Your task to perform on an android device: Open settings on Google Maps Image 0: 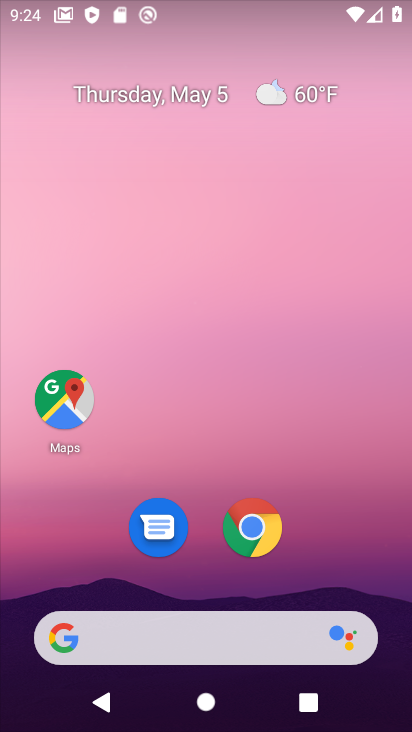
Step 0: click (78, 422)
Your task to perform on an android device: Open settings on Google Maps Image 1: 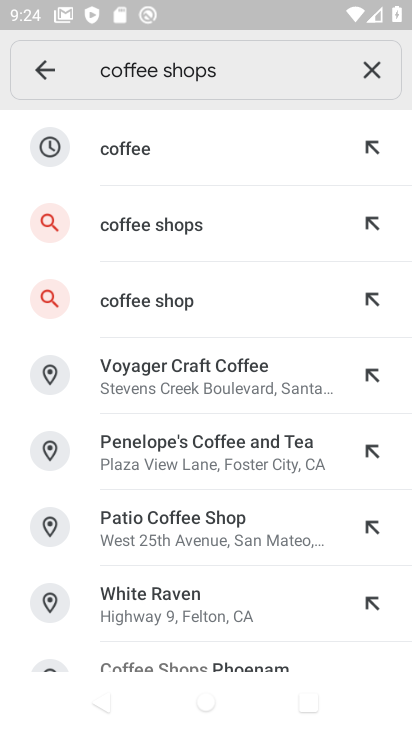
Step 1: click (54, 80)
Your task to perform on an android device: Open settings on Google Maps Image 2: 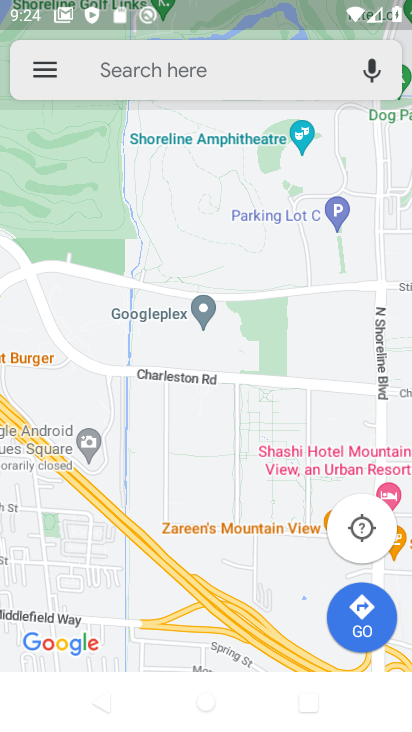
Step 2: click (54, 80)
Your task to perform on an android device: Open settings on Google Maps Image 3: 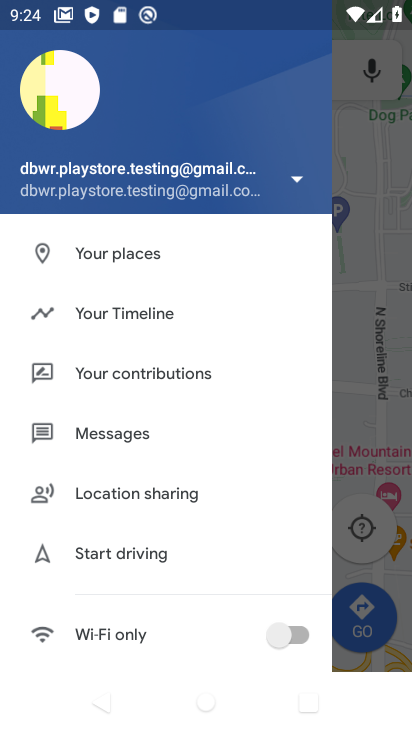
Step 3: drag from (185, 442) to (232, 138)
Your task to perform on an android device: Open settings on Google Maps Image 4: 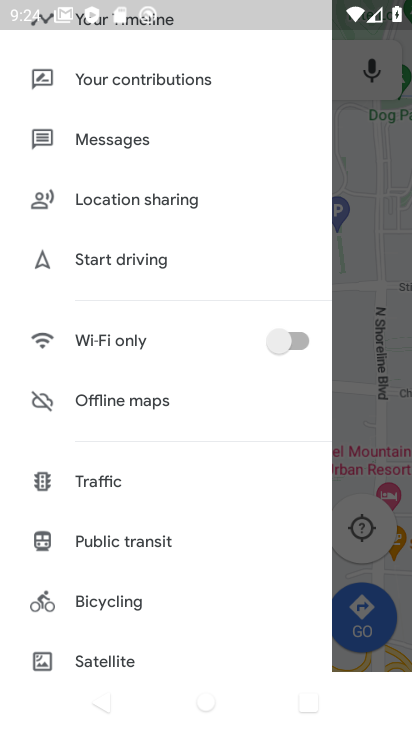
Step 4: drag from (157, 552) to (216, 139)
Your task to perform on an android device: Open settings on Google Maps Image 5: 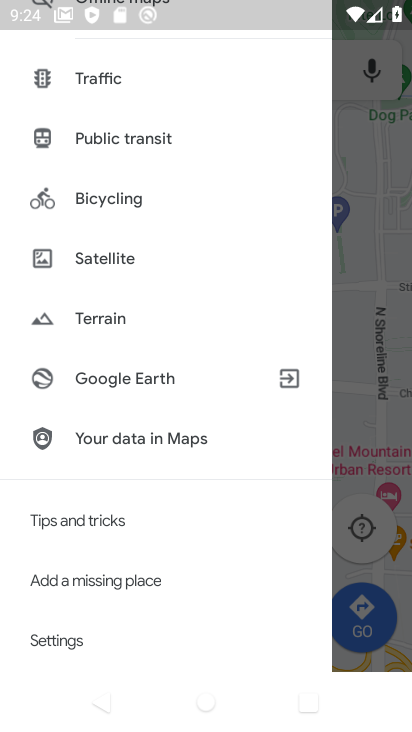
Step 5: click (94, 644)
Your task to perform on an android device: Open settings on Google Maps Image 6: 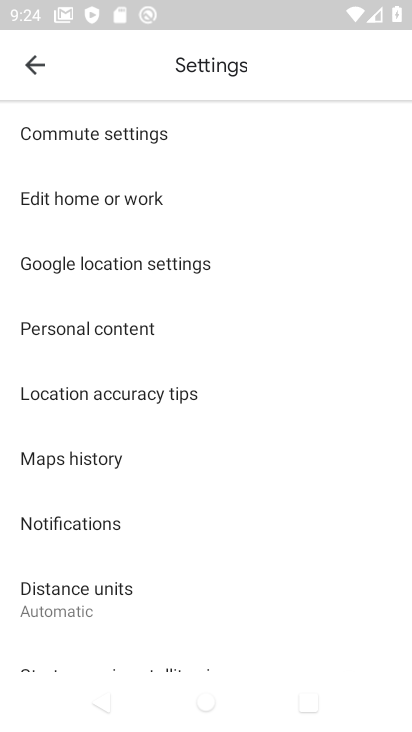
Step 6: task complete